Your task to perform on an android device: read, delete, or share a saved page in the chrome app Image 0: 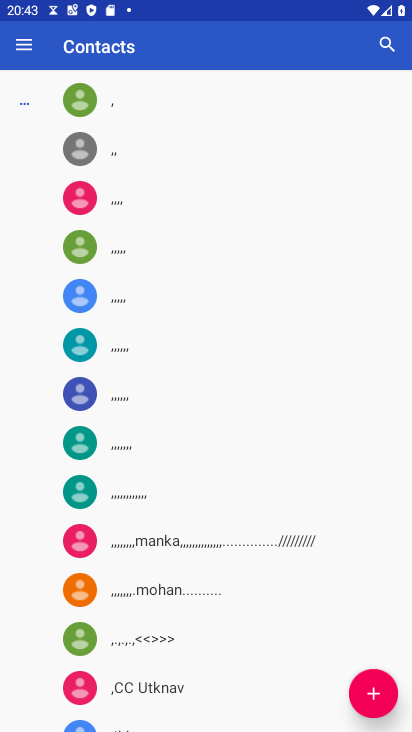
Step 0: press home button
Your task to perform on an android device: read, delete, or share a saved page in the chrome app Image 1: 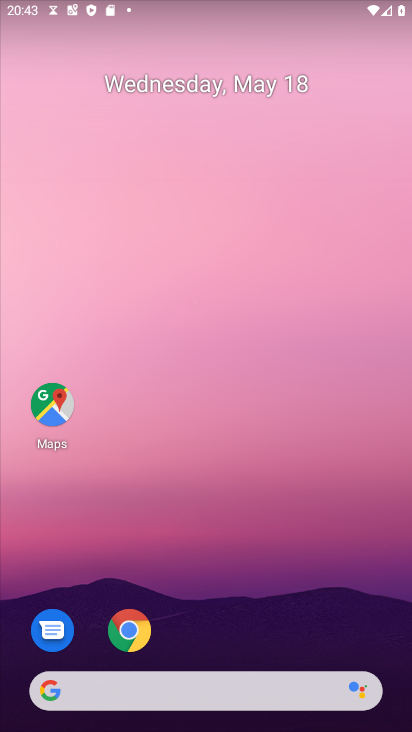
Step 1: click (141, 624)
Your task to perform on an android device: read, delete, or share a saved page in the chrome app Image 2: 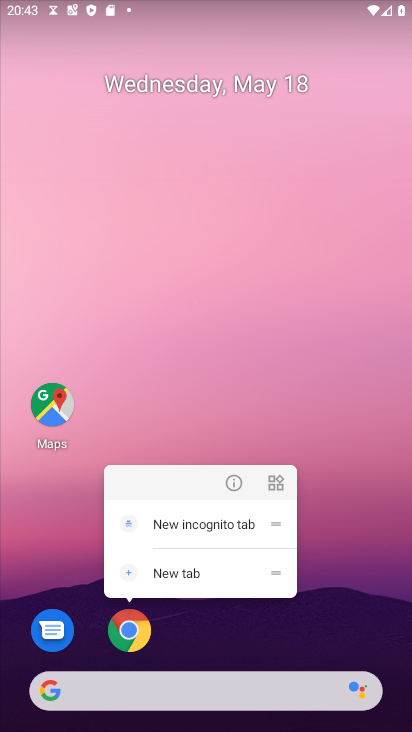
Step 2: click (122, 637)
Your task to perform on an android device: read, delete, or share a saved page in the chrome app Image 3: 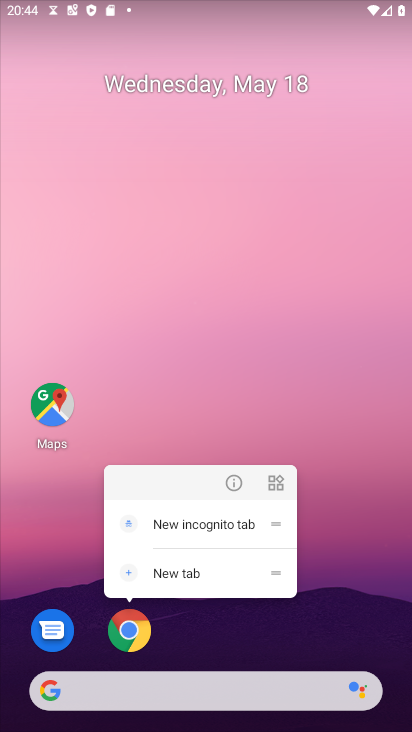
Step 3: click (122, 633)
Your task to perform on an android device: read, delete, or share a saved page in the chrome app Image 4: 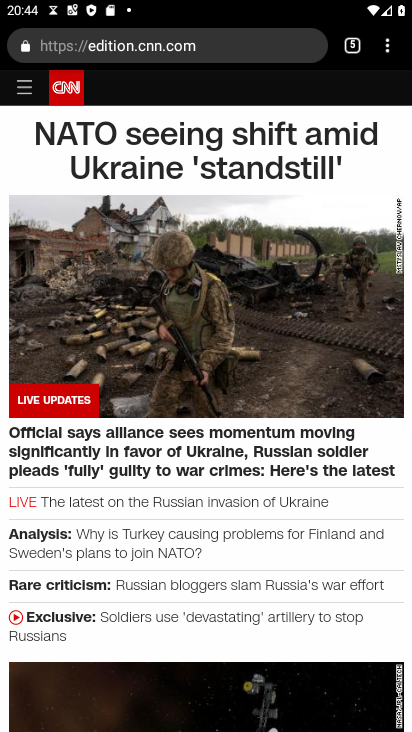
Step 4: drag from (389, 43) to (290, 299)
Your task to perform on an android device: read, delete, or share a saved page in the chrome app Image 5: 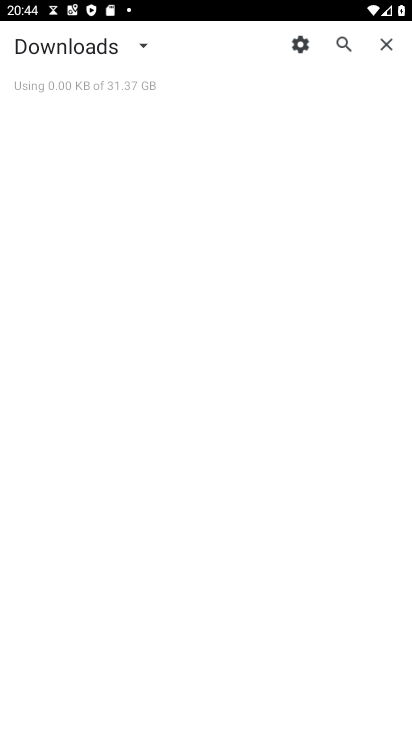
Step 5: click (137, 42)
Your task to perform on an android device: read, delete, or share a saved page in the chrome app Image 6: 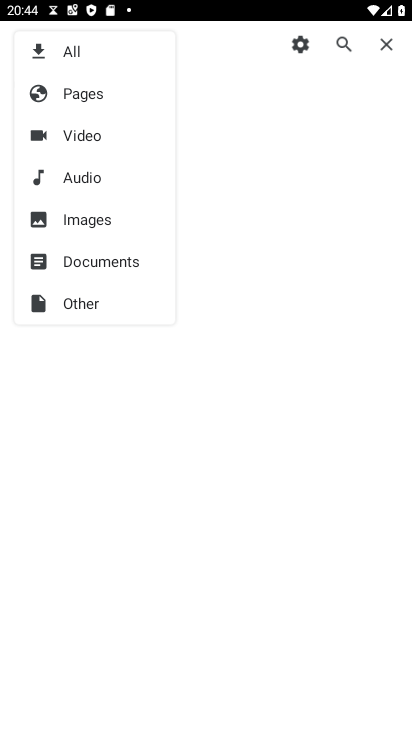
Step 6: click (89, 91)
Your task to perform on an android device: read, delete, or share a saved page in the chrome app Image 7: 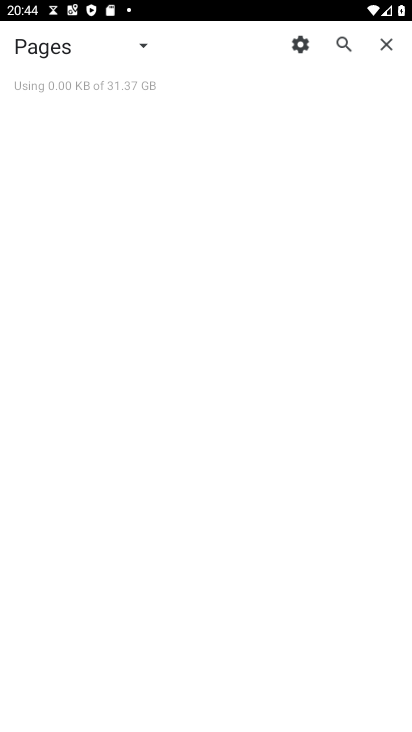
Step 7: task complete